Your task to perform on an android device: toggle data saver in the chrome app Image 0: 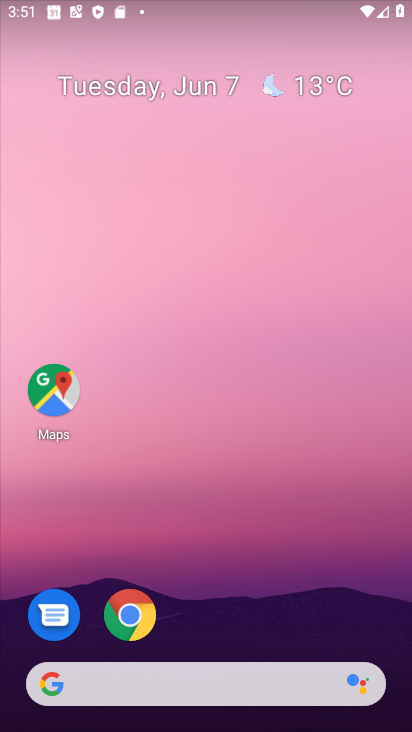
Step 0: click (147, 606)
Your task to perform on an android device: toggle data saver in the chrome app Image 1: 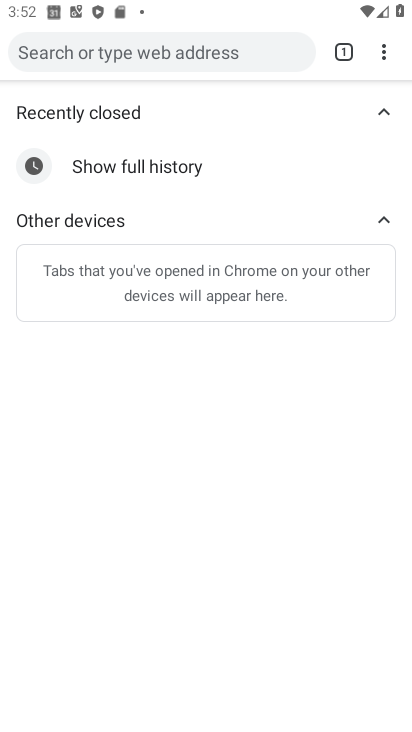
Step 1: click (377, 53)
Your task to perform on an android device: toggle data saver in the chrome app Image 2: 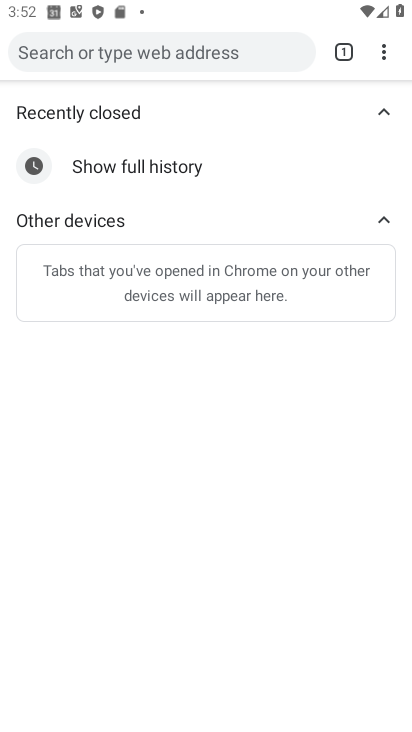
Step 2: click (384, 56)
Your task to perform on an android device: toggle data saver in the chrome app Image 3: 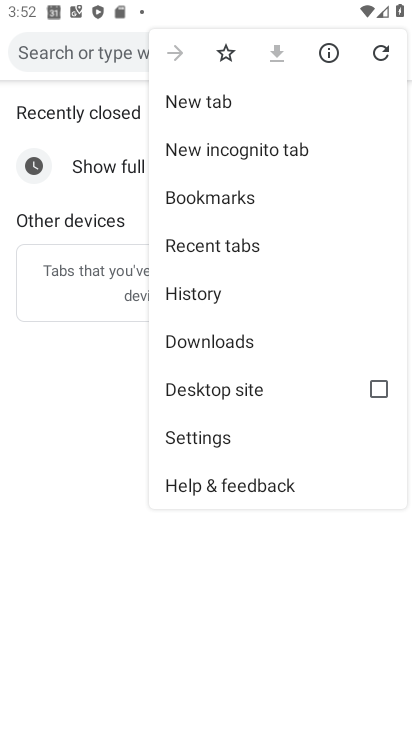
Step 3: click (203, 434)
Your task to perform on an android device: toggle data saver in the chrome app Image 4: 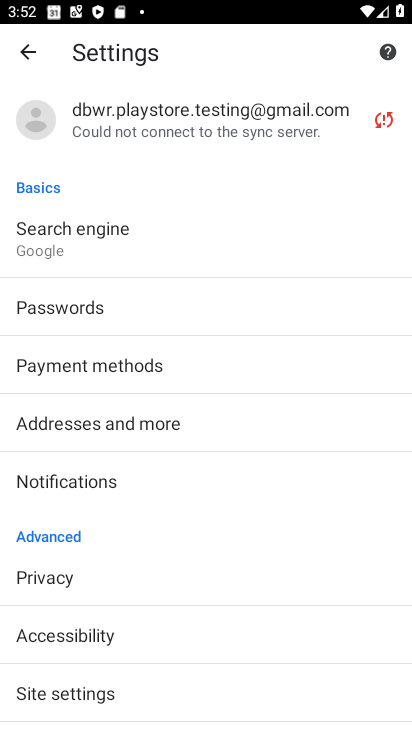
Step 4: drag from (162, 593) to (198, 380)
Your task to perform on an android device: toggle data saver in the chrome app Image 5: 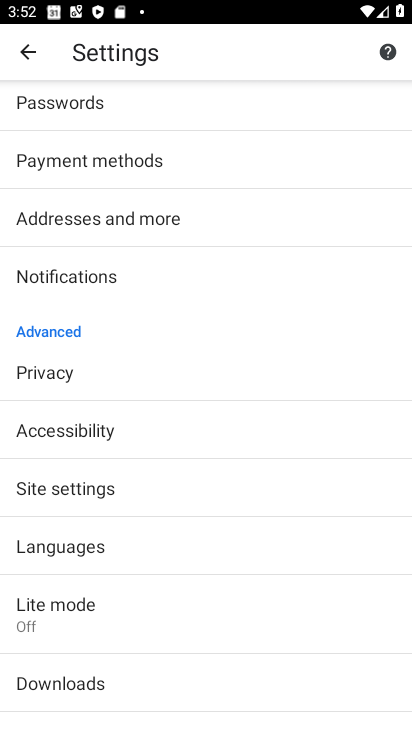
Step 5: click (129, 618)
Your task to perform on an android device: toggle data saver in the chrome app Image 6: 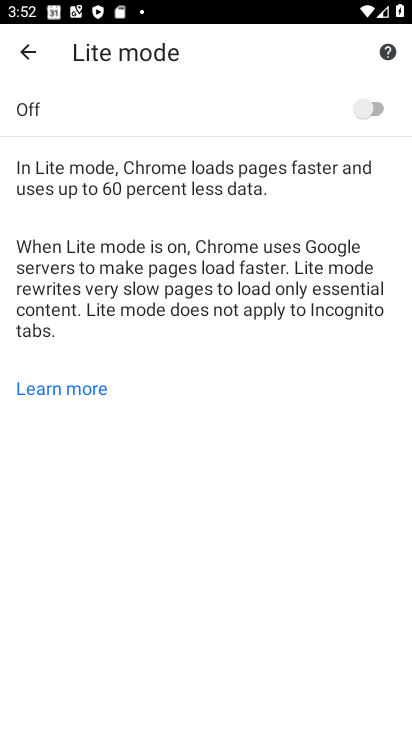
Step 6: click (394, 107)
Your task to perform on an android device: toggle data saver in the chrome app Image 7: 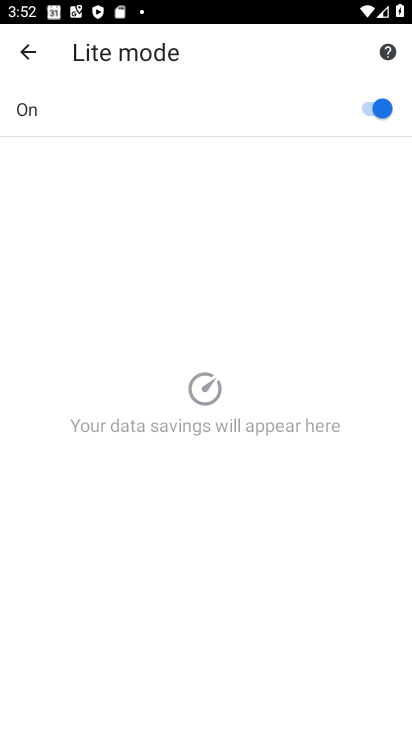
Step 7: task complete